Your task to perform on an android device: Check the weather Image 0: 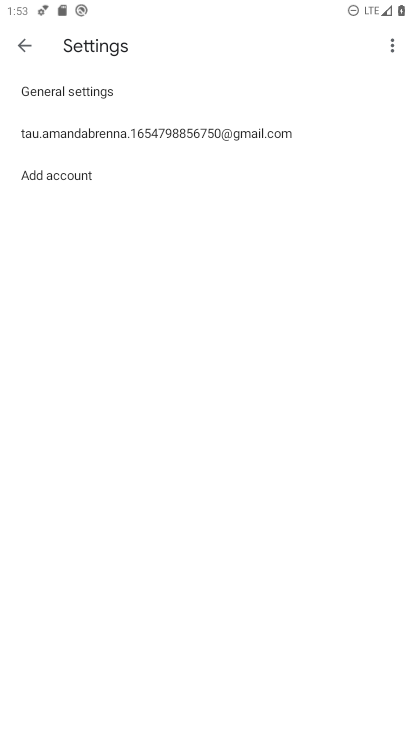
Step 0: press home button
Your task to perform on an android device: Check the weather Image 1: 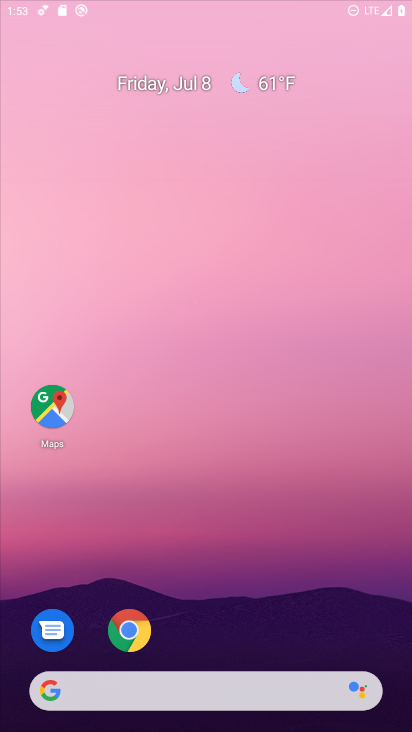
Step 1: drag from (384, 660) to (335, 3)
Your task to perform on an android device: Check the weather Image 2: 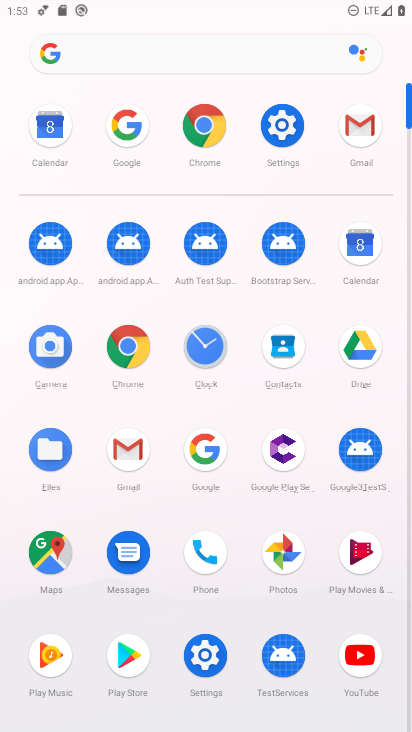
Step 2: click (201, 448)
Your task to perform on an android device: Check the weather Image 3: 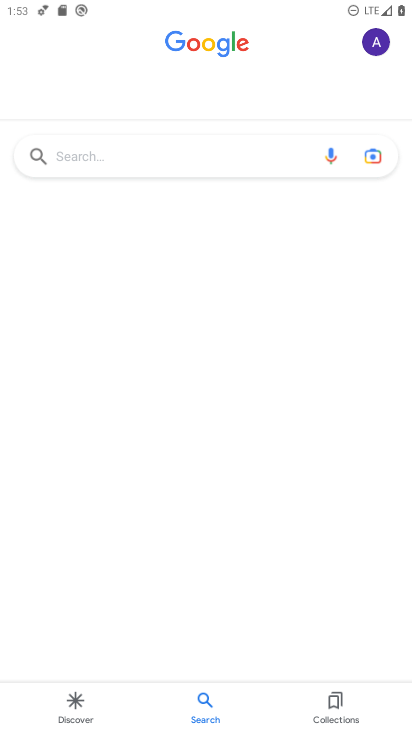
Step 3: type "Check the weather"
Your task to perform on an android device: Check the weather Image 4: 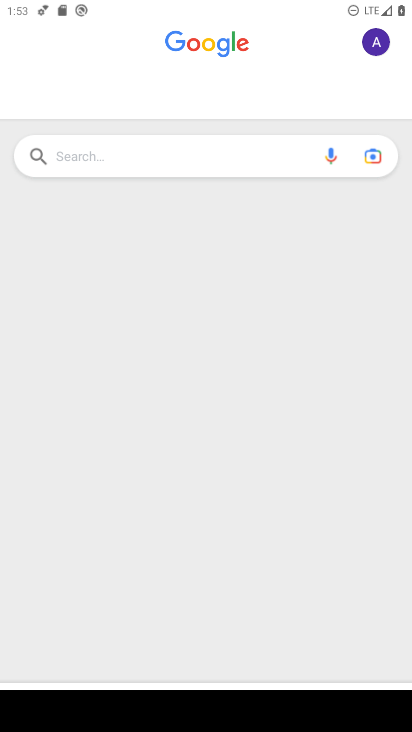
Step 4: click (152, 141)
Your task to perform on an android device: Check the weather Image 5: 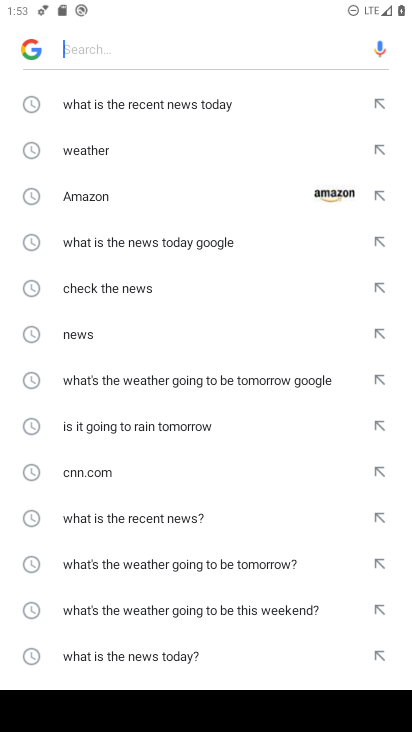
Step 5: type "Check the weather"
Your task to perform on an android device: Check the weather Image 6: 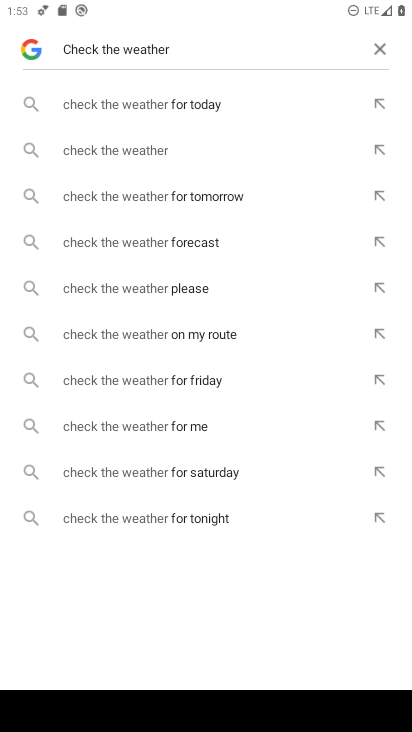
Step 6: click (127, 148)
Your task to perform on an android device: Check the weather Image 7: 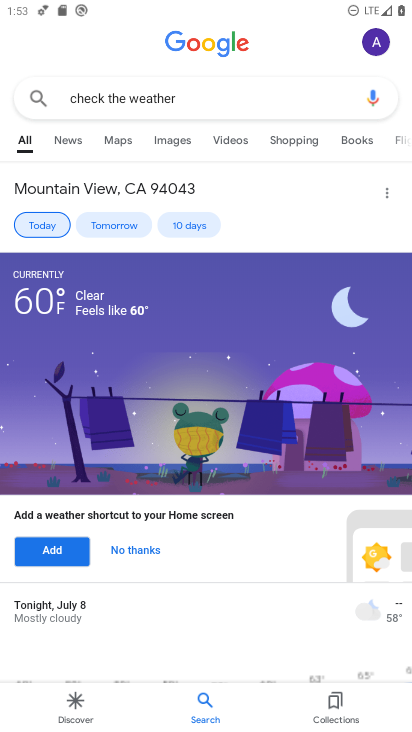
Step 7: task complete